Your task to perform on an android device: Open accessibility settings Image 0: 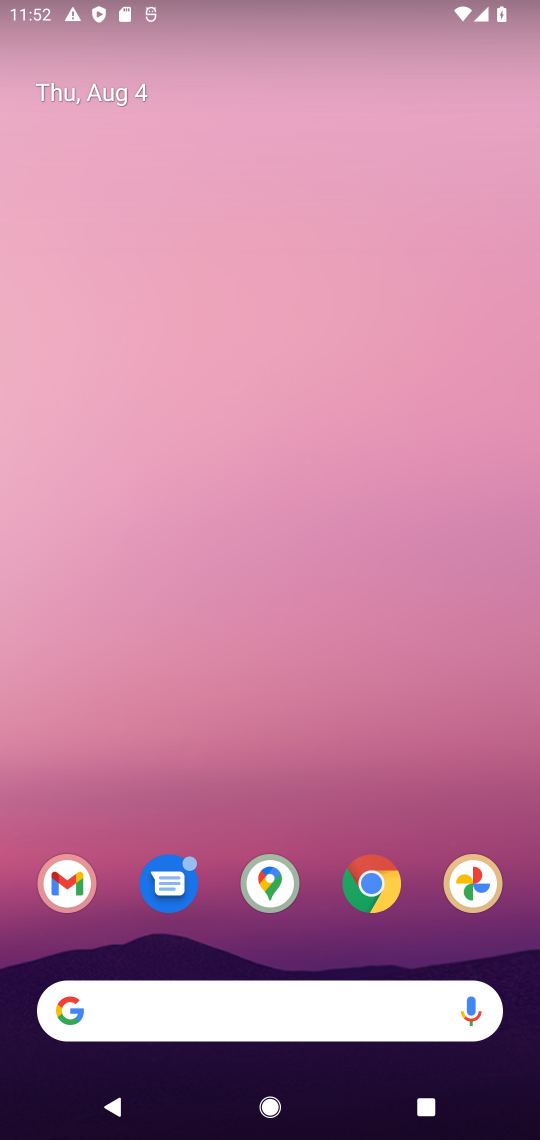
Step 0: drag from (242, 916) to (301, 236)
Your task to perform on an android device: Open accessibility settings Image 1: 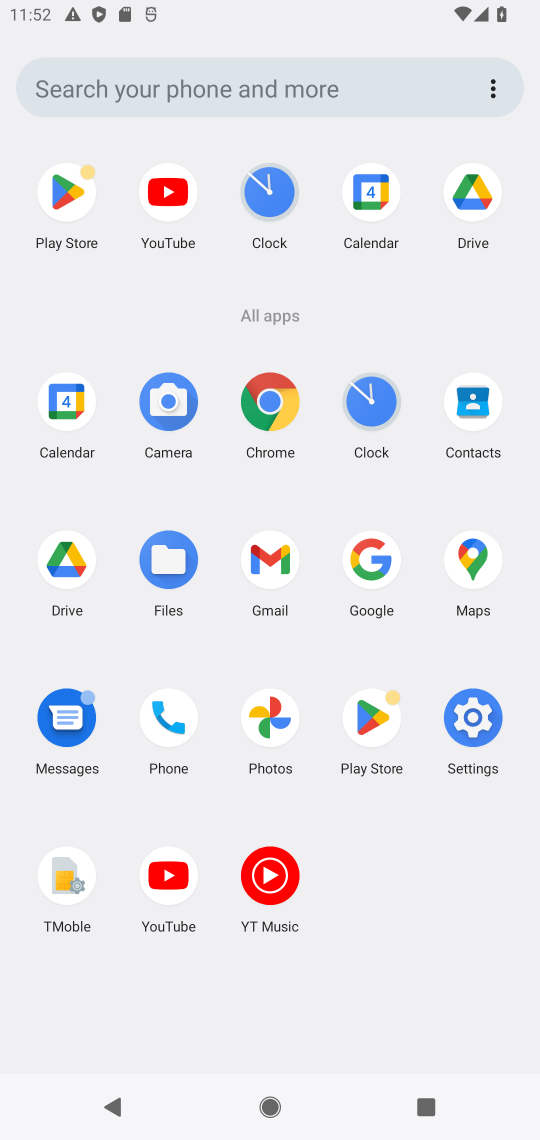
Step 1: click (468, 717)
Your task to perform on an android device: Open accessibility settings Image 2: 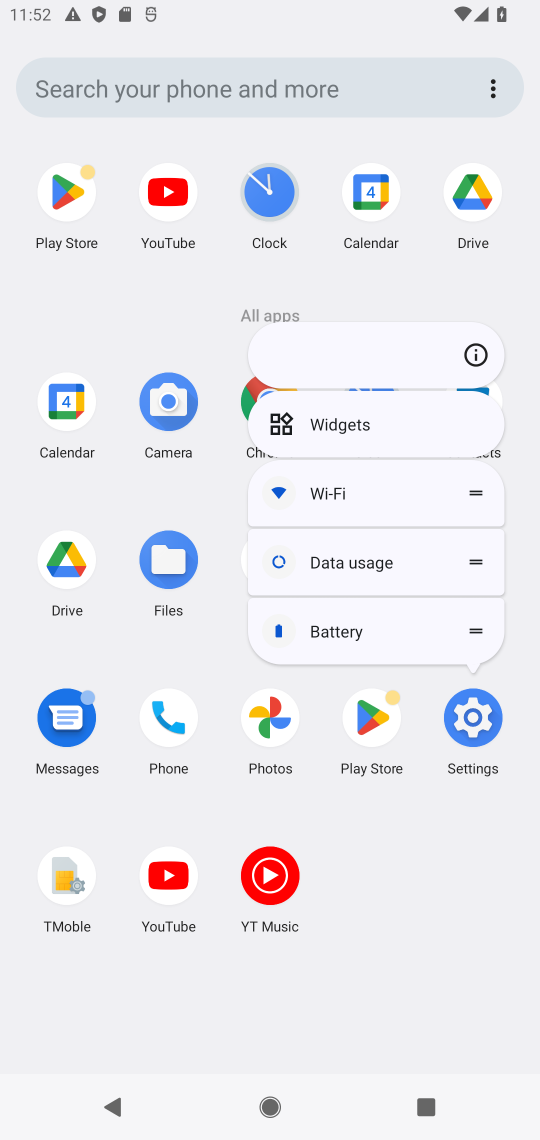
Step 2: click (475, 362)
Your task to perform on an android device: Open accessibility settings Image 3: 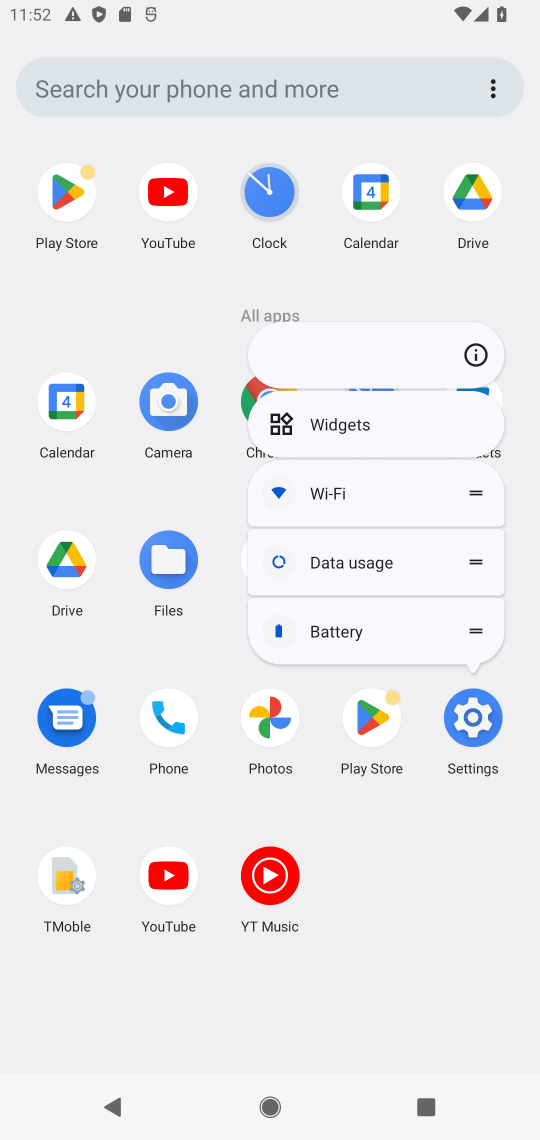
Step 3: click (467, 352)
Your task to perform on an android device: Open accessibility settings Image 4: 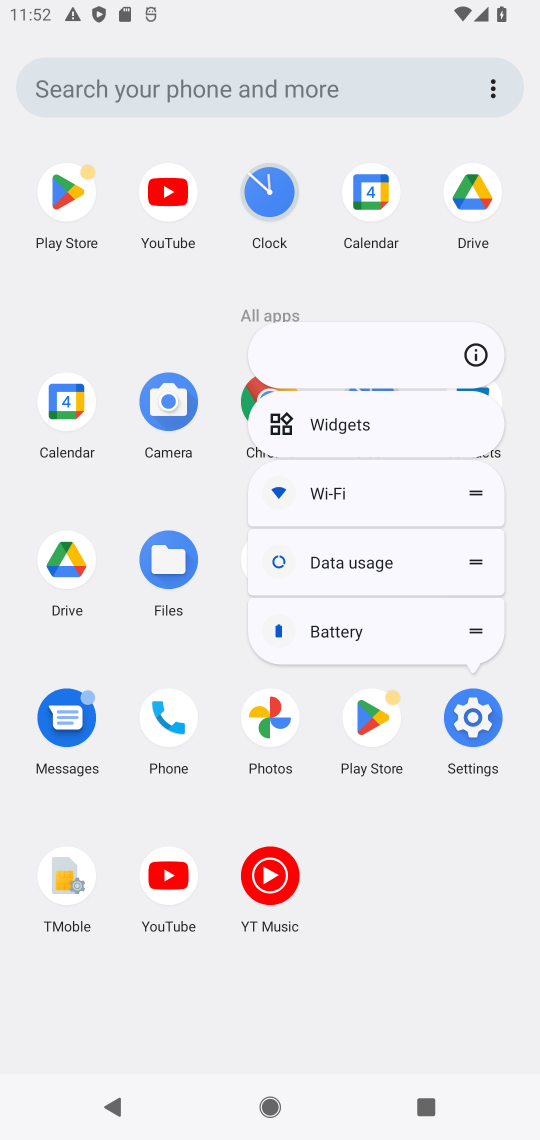
Step 4: click (467, 352)
Your task to perform on an android device: Open accessibility settings Image 5: 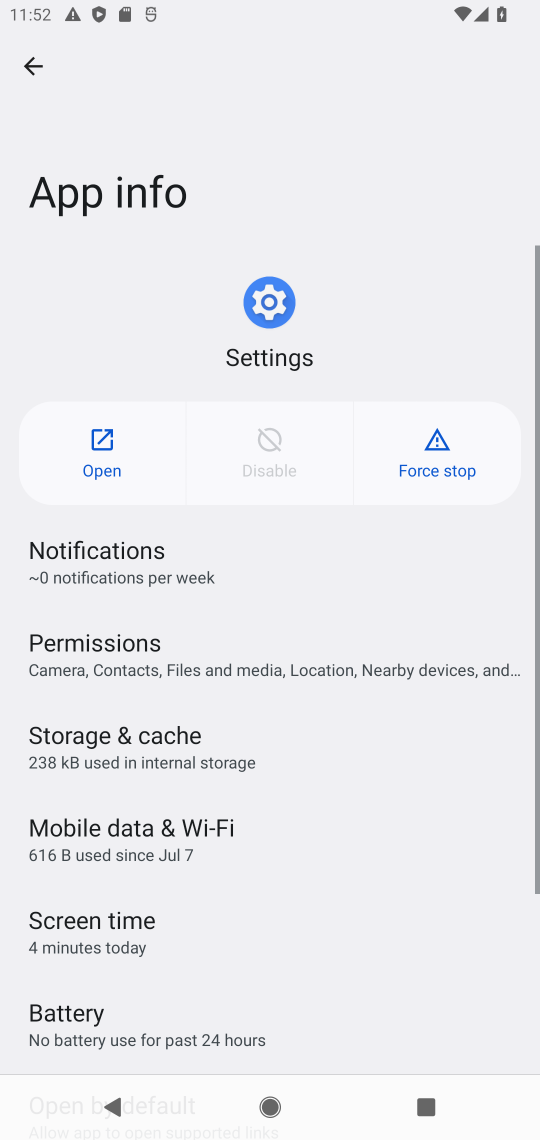
Step 5: click (88, 452)
Your task to perform on an android device: Open accessibility settings Image 6: 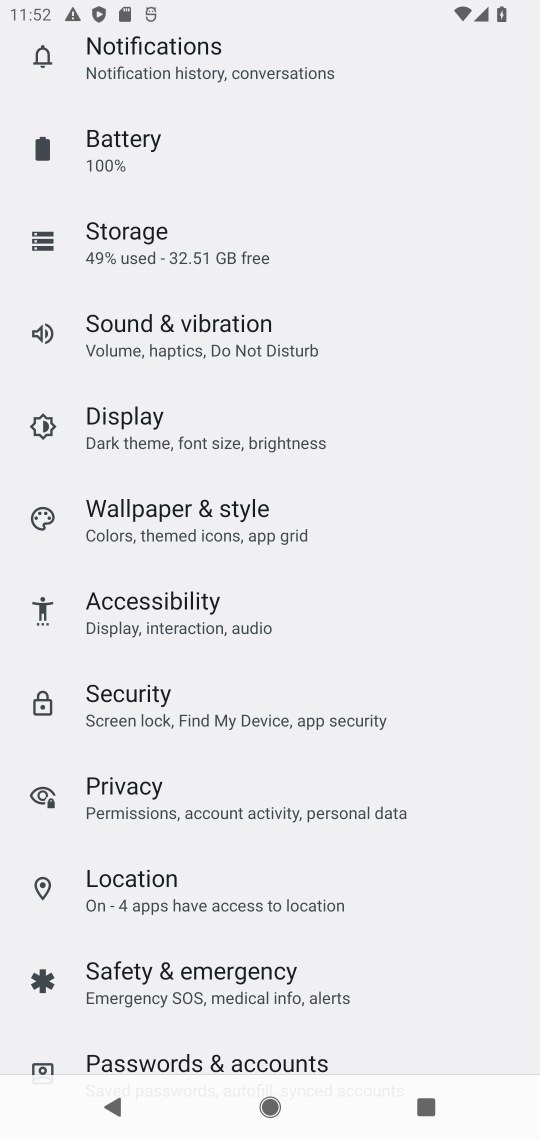
Step 6: click (216, 602)
Your task to perform on an android device: Open accessibility settings Image 7: 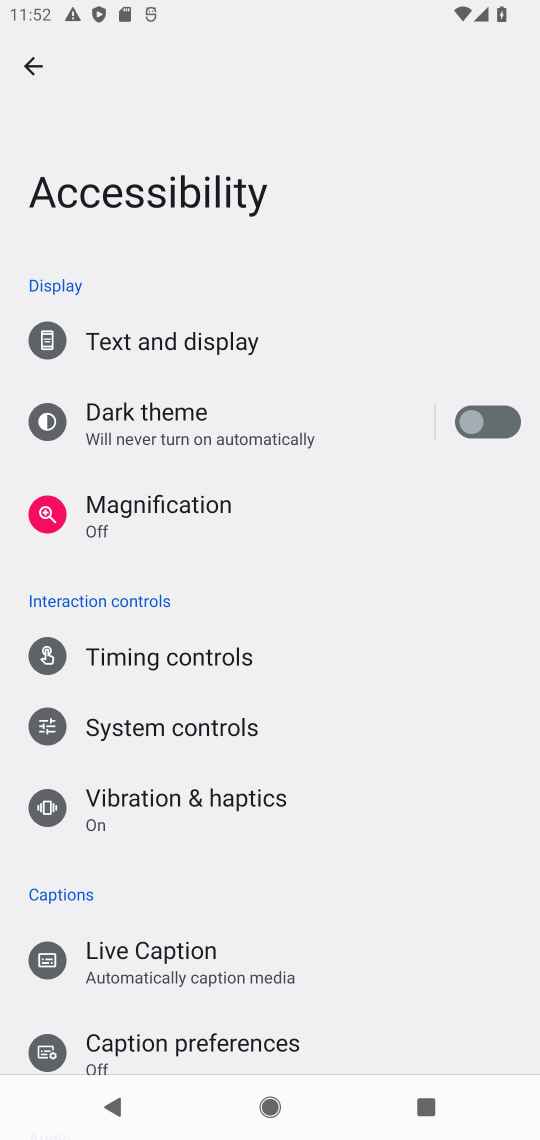
Step 7: task complete